Your task to perform on an android device: turn off notifications settings in the gmail app Image 0: 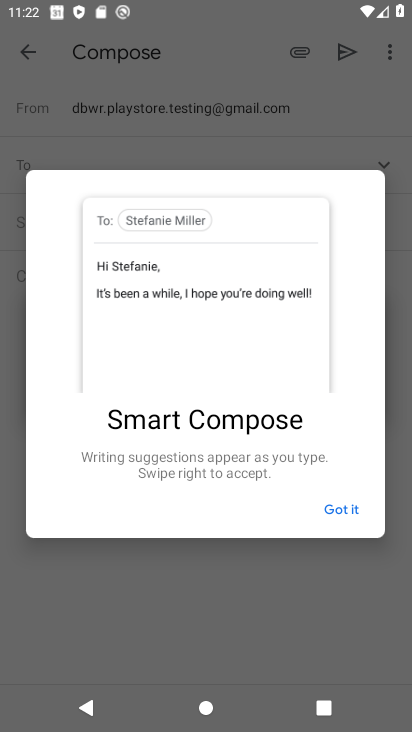
Step 0: press home button
Your task to perform on an android device: turn off notifications settings in the gmail app Image 1: 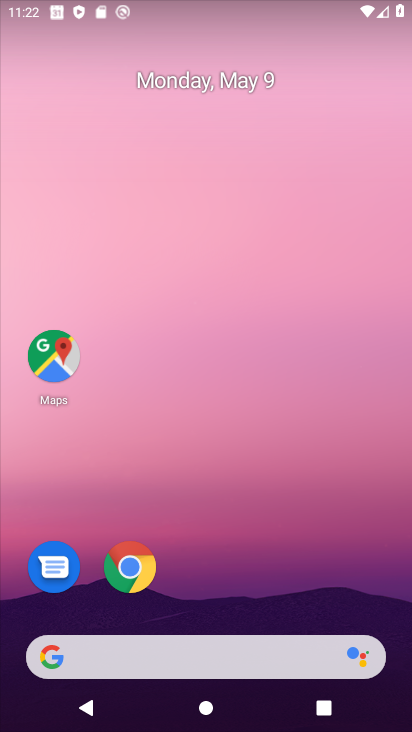
Step 1: drag from (387, 609) to (341, 93)
Your task to perform on an android device: turn off notifications settings in the gmail app Image 2: 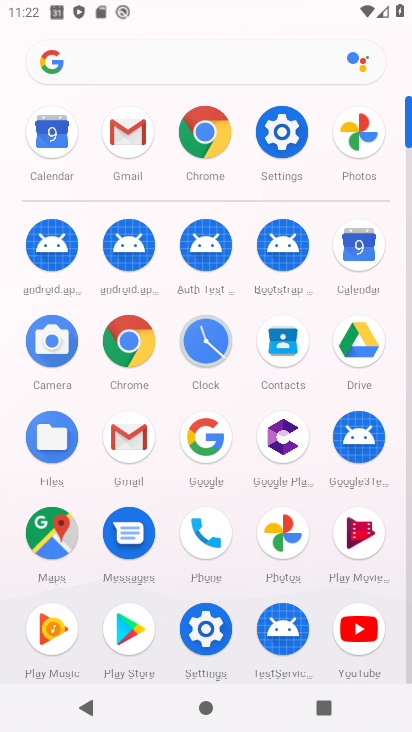
Step 2: click (115, 435)
Your task to perform on an android device: turn off notifications settings in the gmail app Image 3: 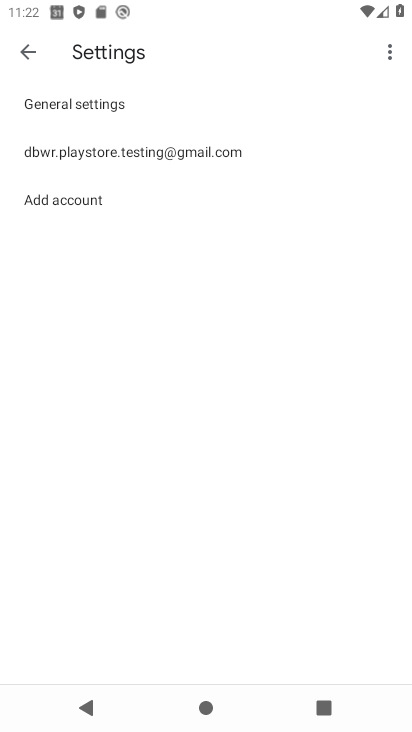
Step 3: click (182, 158)
Your task to perform on an android device: turn off notifications settings in the gmail app Image 4: 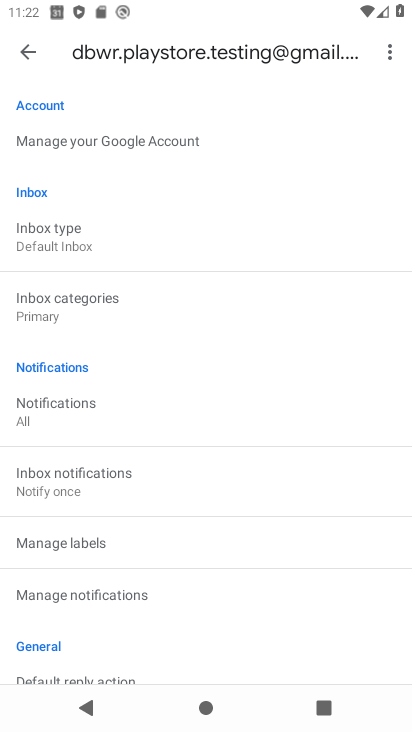
Step 4: click (57, 415)
Your task to perform on an android device: turn off notifications settings in the gmail app Image 5: 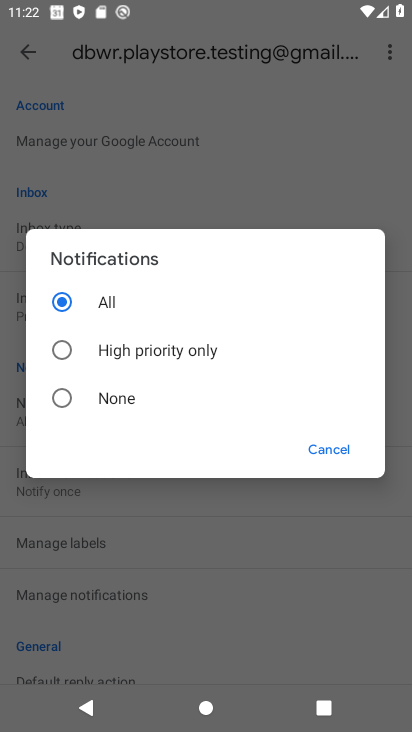
Step 5: click (65, 405)
Your task to perform on an android device: turn off notifications settings in the gmail app Image 6: 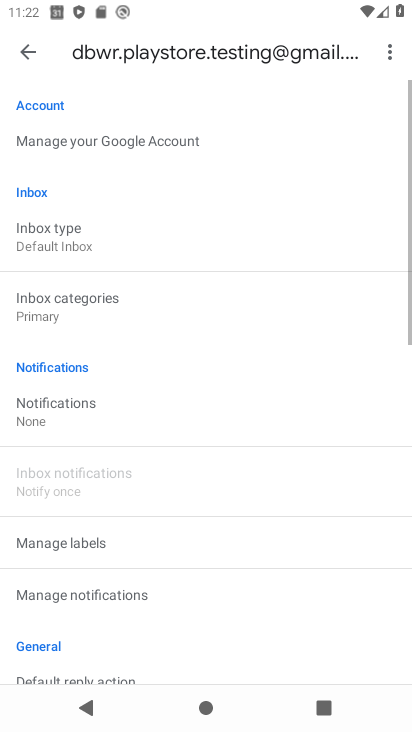
Step 6: task complete